Your task to perform on an android device: Check the weather Image 0: 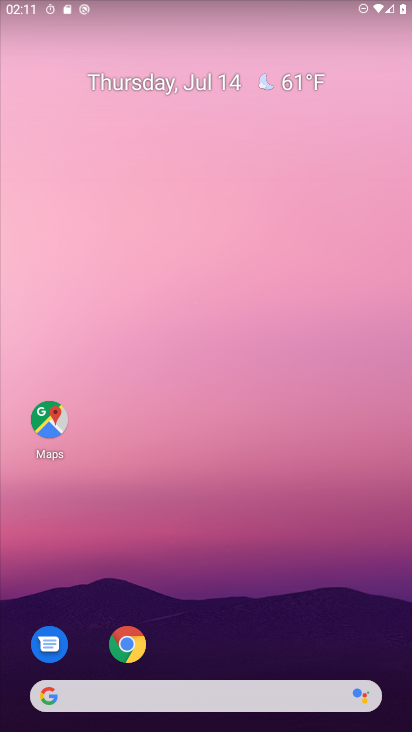
Step 0: drag from (301, 592) to (289, 119)
Your task to perform on an android device: Check the weather Image 1: 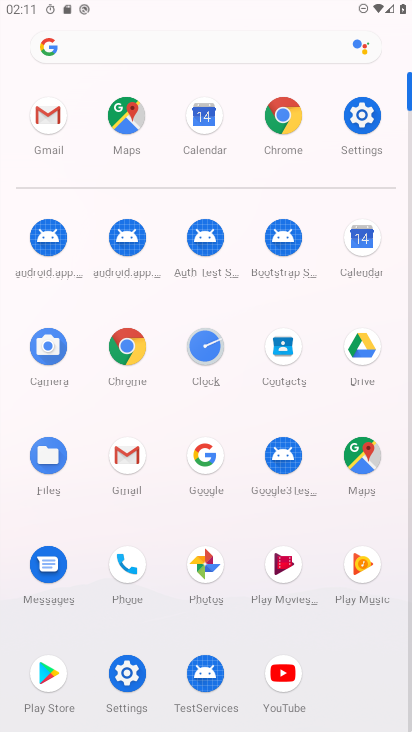
Step 1: press home button
Your task to perform on an android device: Check the weather Image 2: 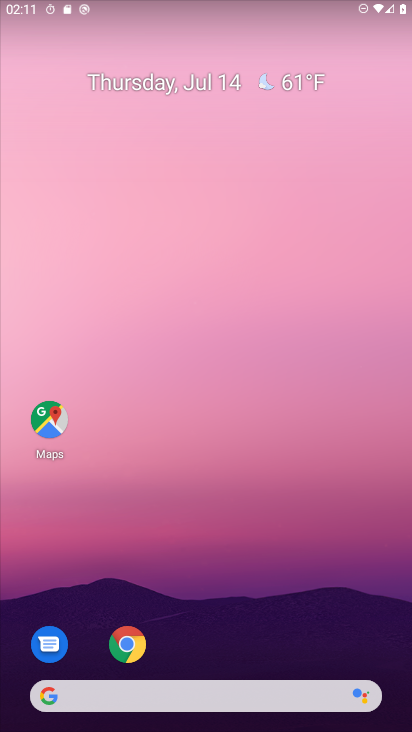
Step 2: click (293, 83)
Your task to perform on an android device: Check the weather Image 3: 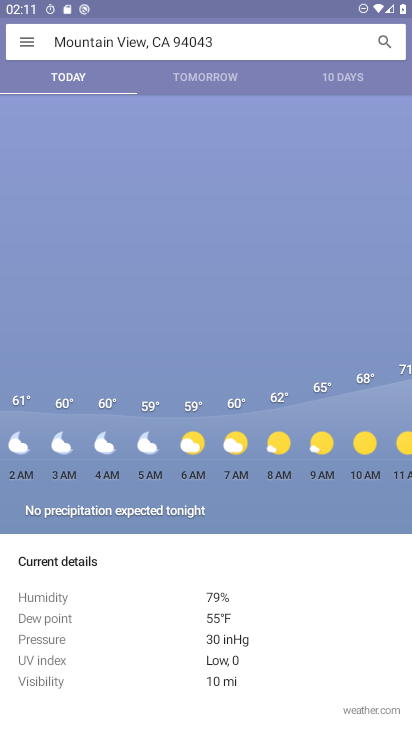
Step 3: task complete